Your task to perform on an android device: Go to network settings Image 0: 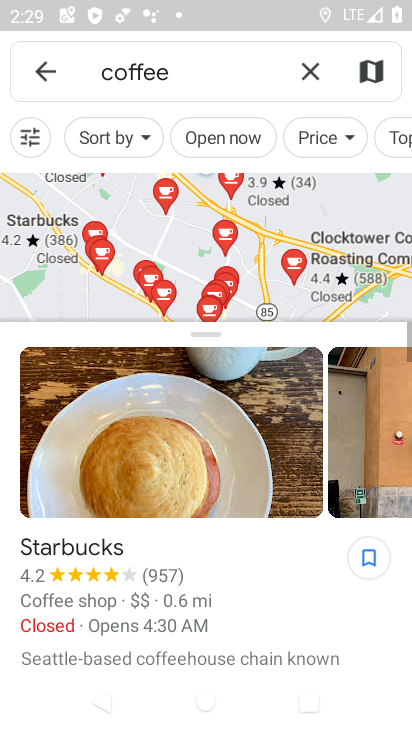
Step 0: click (335, 547)
Your task to perform on an android device: Go to network settings Image 1: 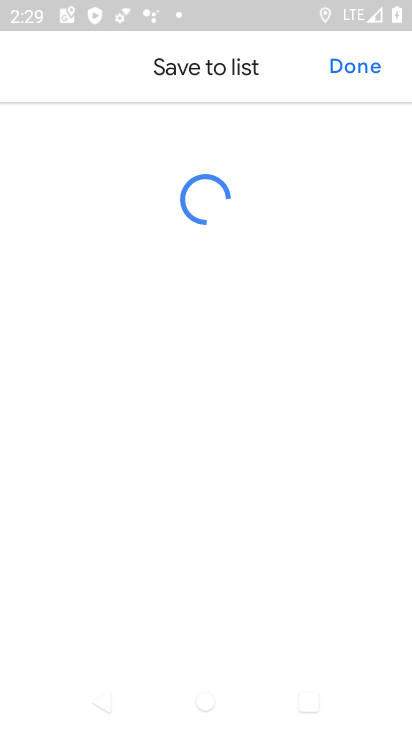
Step 1: press home button
Your task to perform on an android device: Go to network settings Image 2: 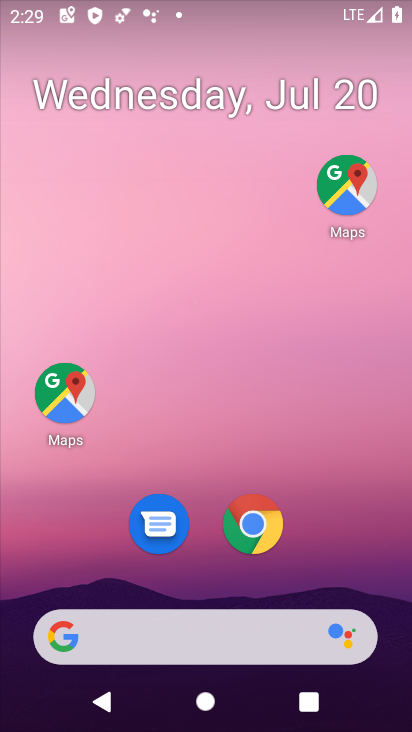
Step 2: drag from (283, 375) to (329, 24)
Your task to perform on an android device: Go to network settings Image 3: 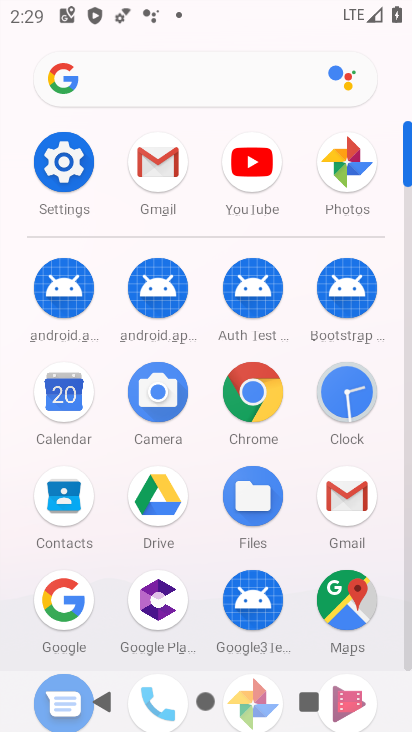
Step 3: click (72, 153)
Your task to perform on an android device: Go to network settings Image 4: 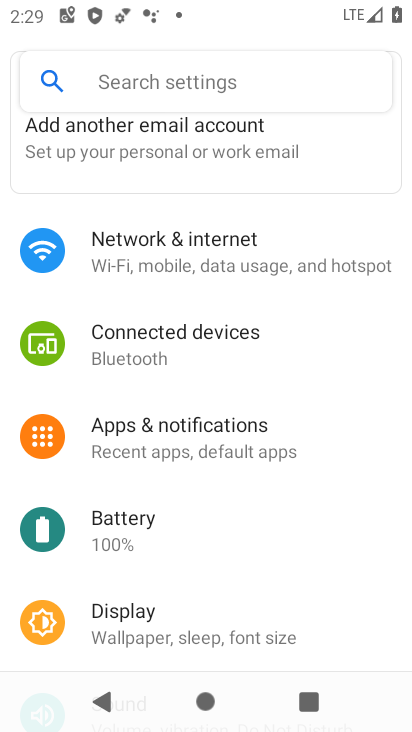
Step 4: click (207, 255)
Your task to perform on an android device: Go to network settings Image 5: 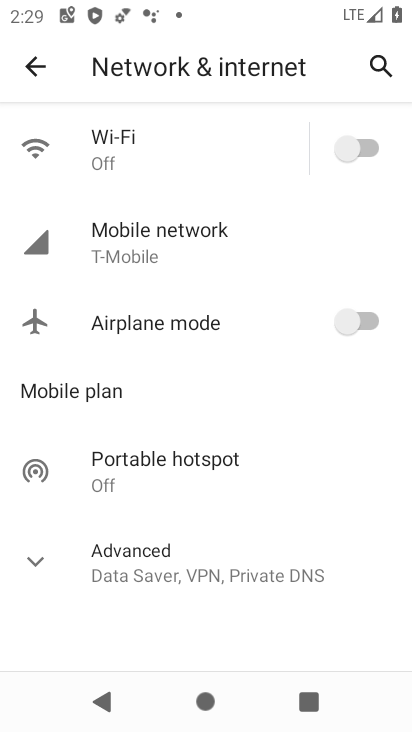
Step 5: task complete